Your task to perform on an android device: empty trash in the gmail app Image 0: 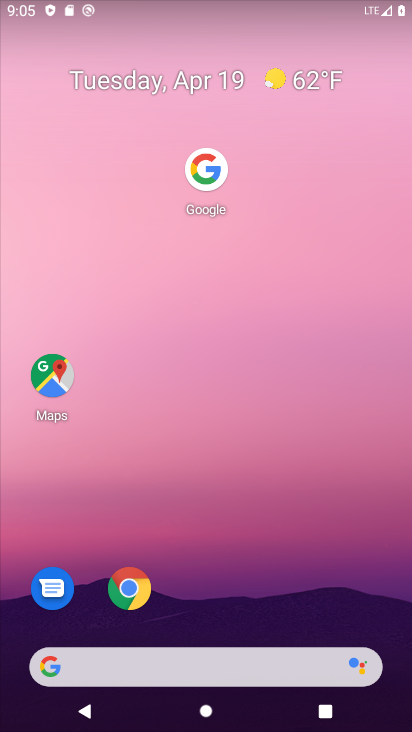
Step 0: drag from (199, 570) to (111, 12)
Your task to perform on an android device: empty trash in the gmail app Image 1: 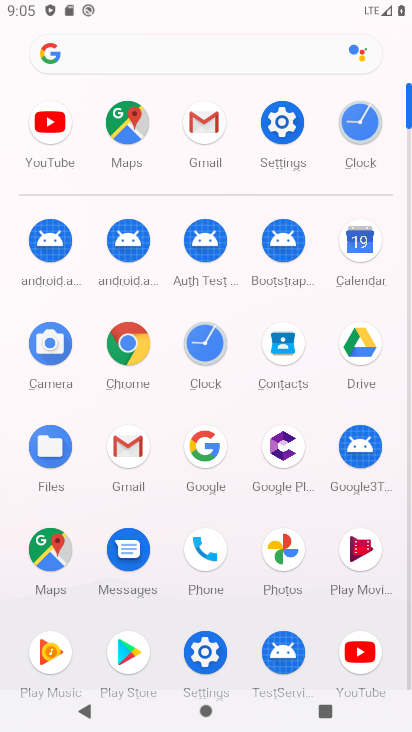
Step 1: click (200, 125)
Your task to perform on an android device: empty trash in the gmail app Image 2: 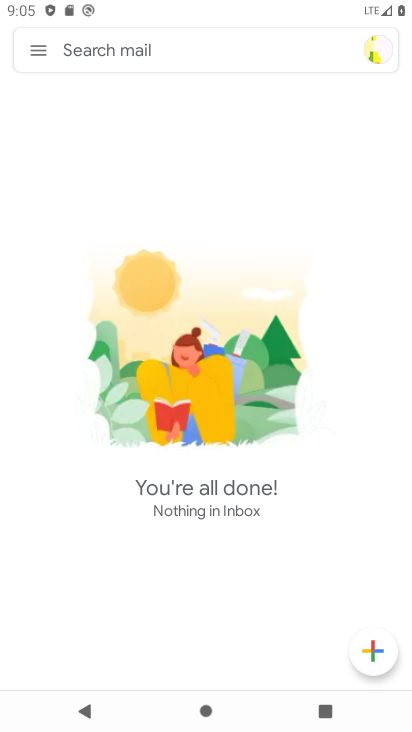
Step 2: click (37, 48)
Your task to perform on an android device: empty trash in the gmail app Image 3: 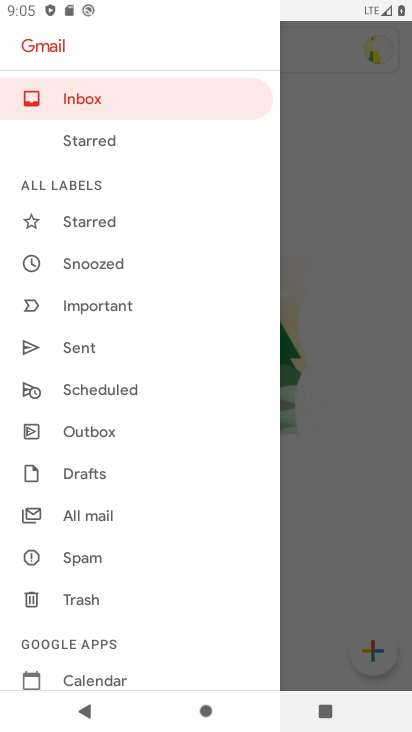
Step 3: click (83, 597)
Your task to perform on an android device: empty trash in the gmail app Image 4: 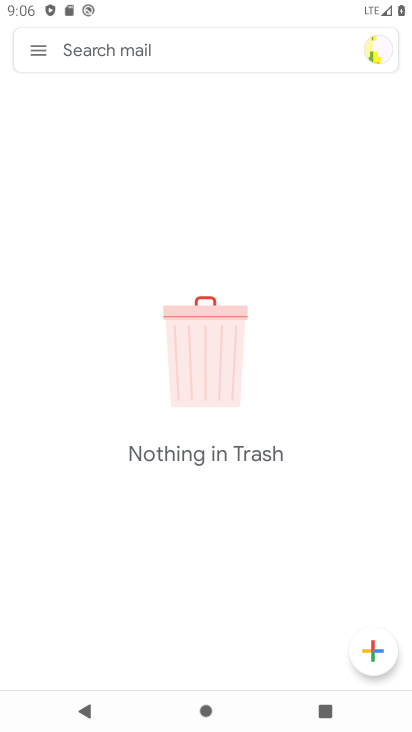
Step 4: task complete